Your task to perform on an android device: Go to battery settings Image 0: 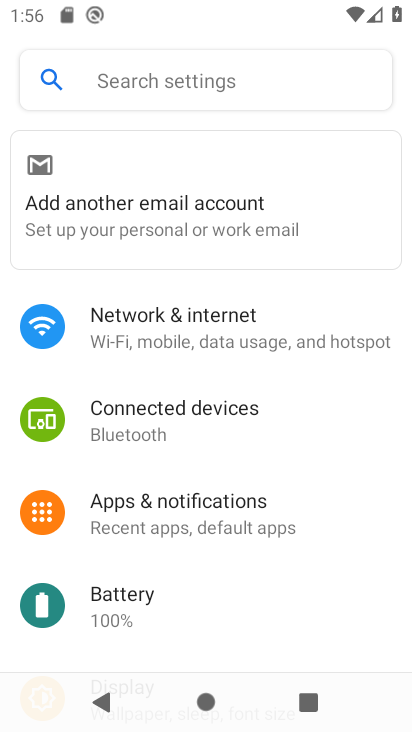
Step 0: click (140, 593)
Your task to perform on an android device: Go to battery settings Image 1: 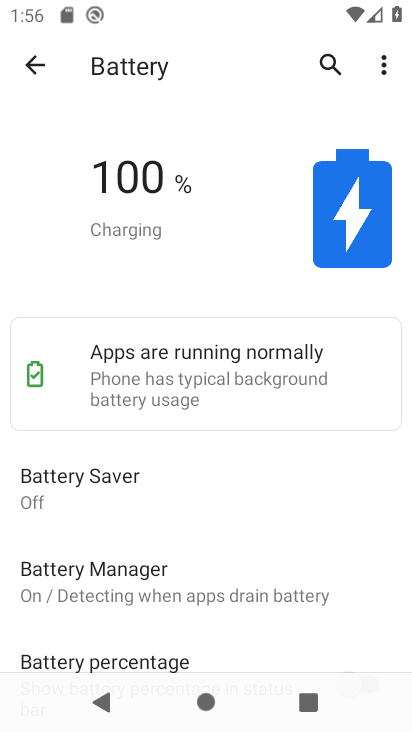
Step 1: task complete